Your task to perform on an android device: turn on the 12-hour format for clock Image 0: 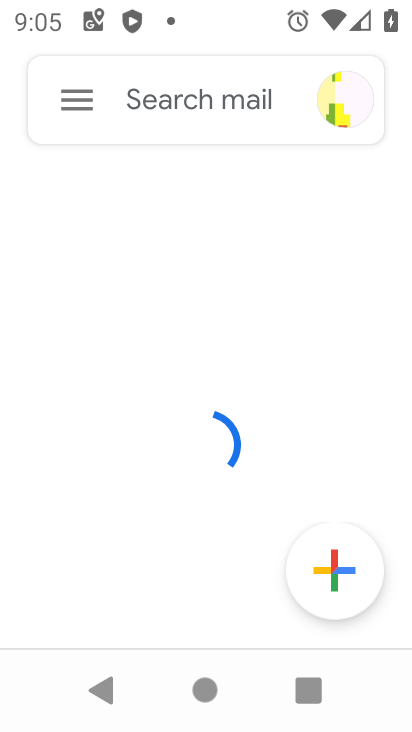
Step 0: press home button
Your task to perform on an android device: turn on the 12-hour format for clock Image 1: 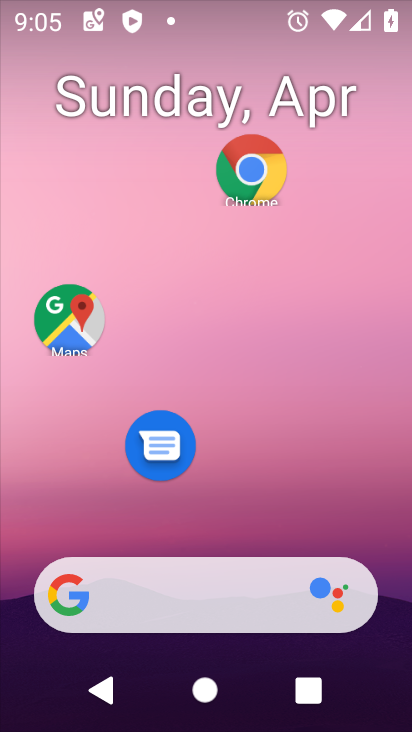
Step 1: drag from (213, 520) to (223, 118)
Your task to perform on an android device: turn on the 12-hour format for clock Image 2: 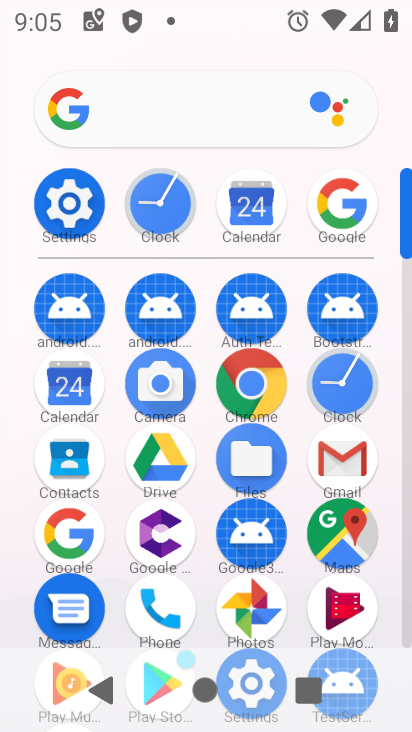
Step 2: click (339, 390)
Your task to perform on an android device: turn on the 12-hour format for clock Image 3: 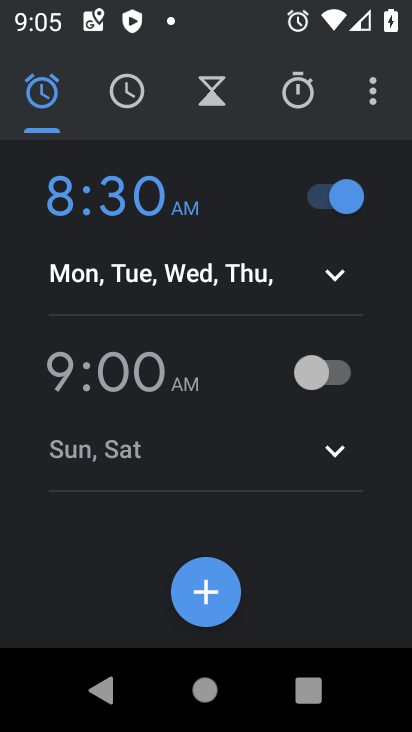
Step 3: click (367, 99)
Your task to perform on an android device: turn on the 12-hour format for clock Image 4: 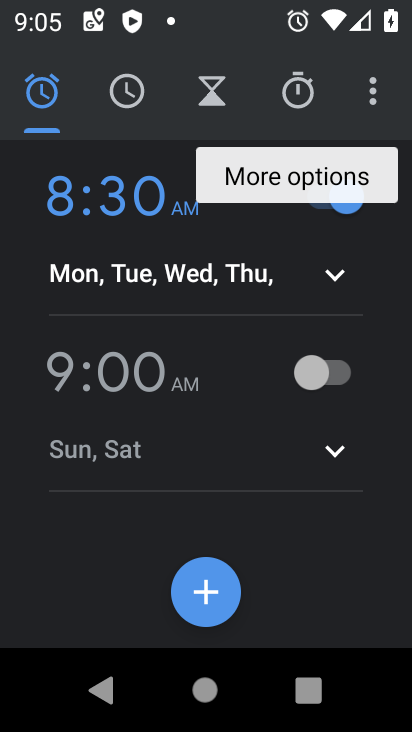
Step 4: click (363, 98)
Your task to perform on an android device: turn on the 12-hour format for clock Image 5: 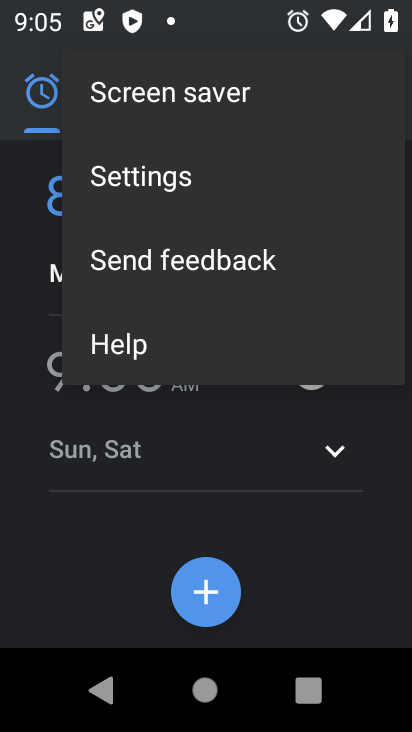
Step 5: click (163, 190)
Your task to perform on an android device: turn on the 12-hour format for clock Image 6: 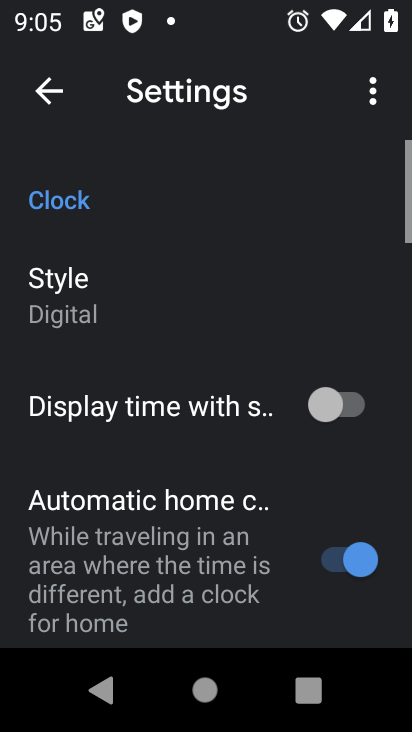
Step 6: drag from (231, 515) to (279, 163)
Your task to perform on an android device: turn on the 12-hour format for clock Image 7: 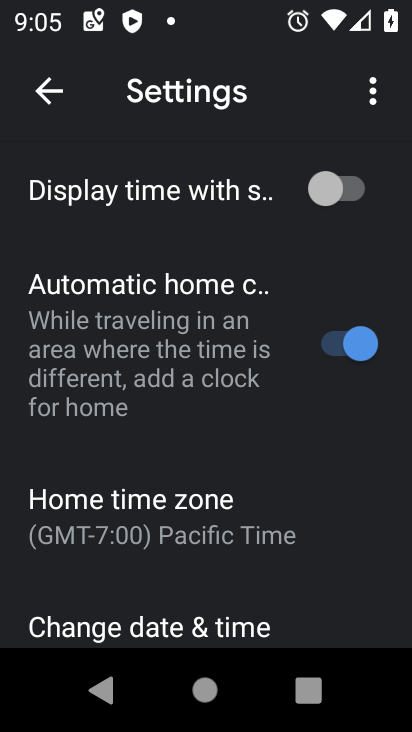
Step 7: click (154, 621)
Your task to perform on an android device: turn on the 12-hour format for clock Image 8: 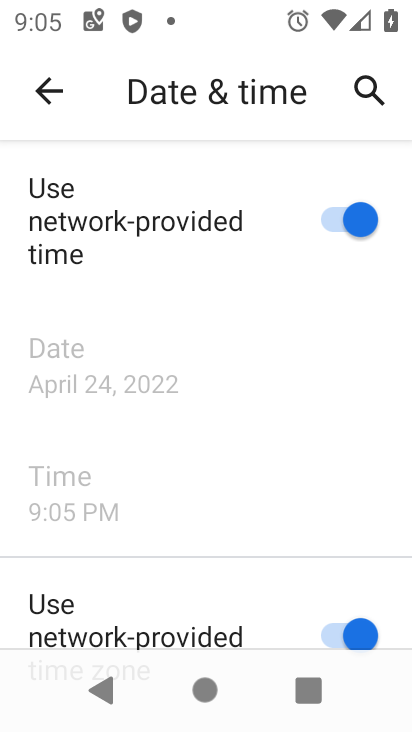
Step 8: task complete